Your task to perform on an android device: delete a single message in the gmail app Image 0: 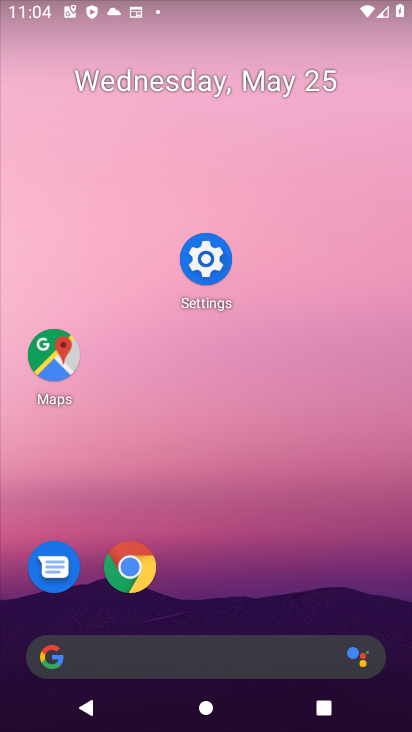
Step 0: drag from (342, 555) to (279, 28)
Your task to perform on an android device: delete a single message in the gmail app Image 1: 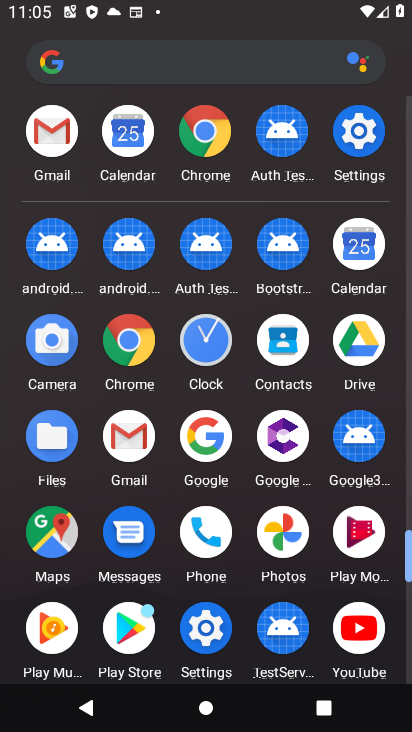
Step 1: click (61, 166)
Your task to perform on an android device: delete a single message in the gmail app Image 2: 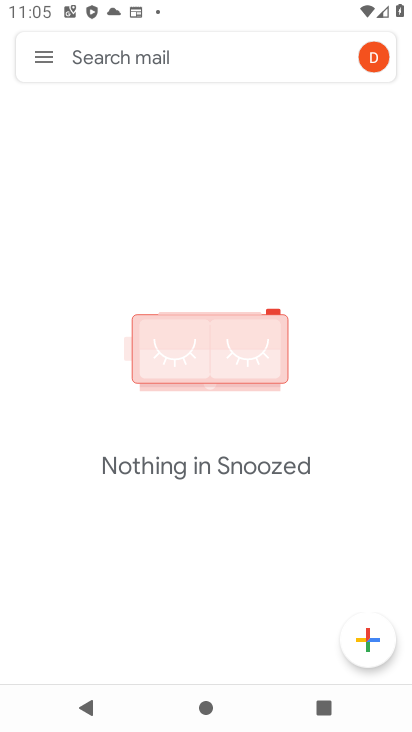
Step 2: click (26, 143)
Your task to perform on an android device: delete a single message in the gmail app Image 3: 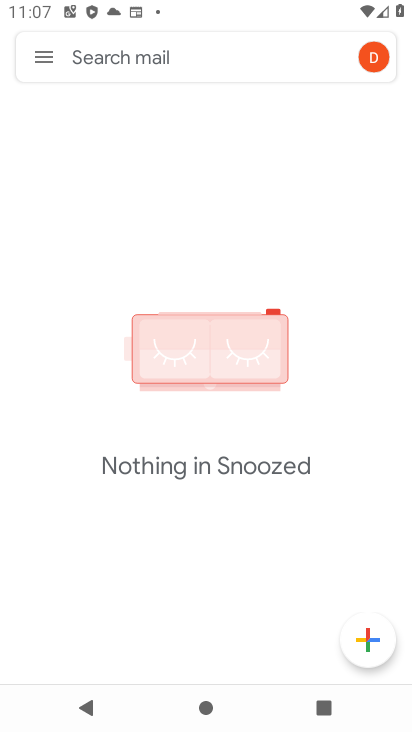
Step 3: click (28, 67)
Your task to perform on an android device: delete a single message in the gmail app Image 4: 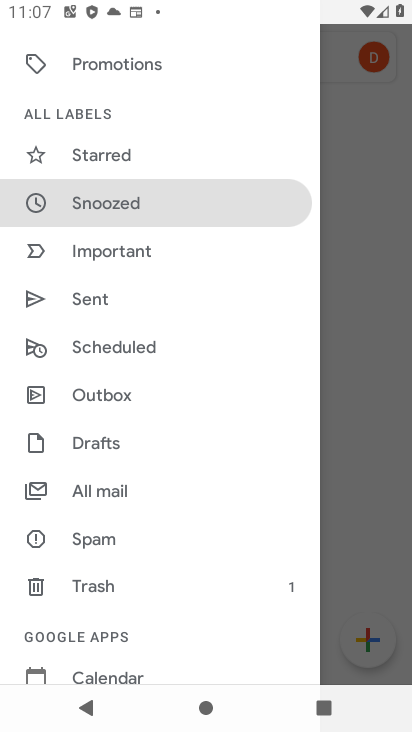
Step 4: click (139, 496)
Your task to perform on an android device: delete a single message in the gmail app Image 5: 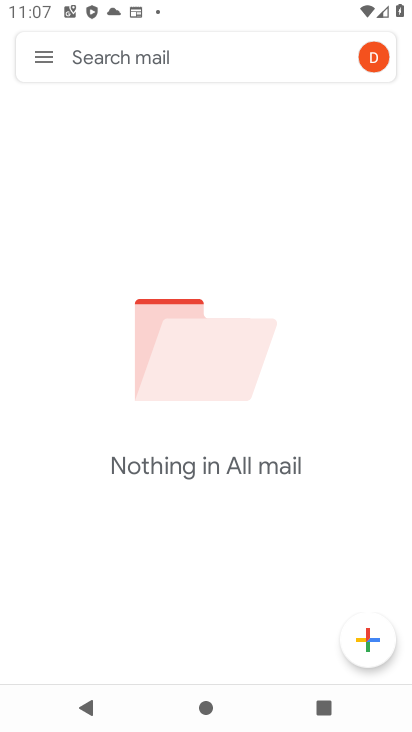
Step 5: task complete